Your task to perform on an android device: turn off priority inbox in the gmail app Image 0: 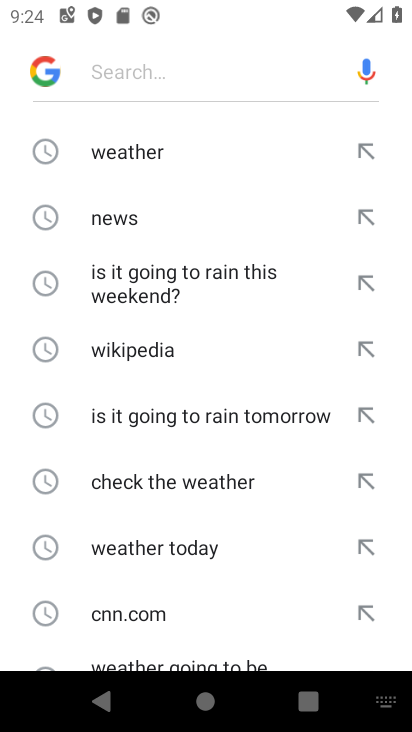
Step 0: press home button
Your task to perform on an android device: turn off priority inbox in the gmail app Image 1: 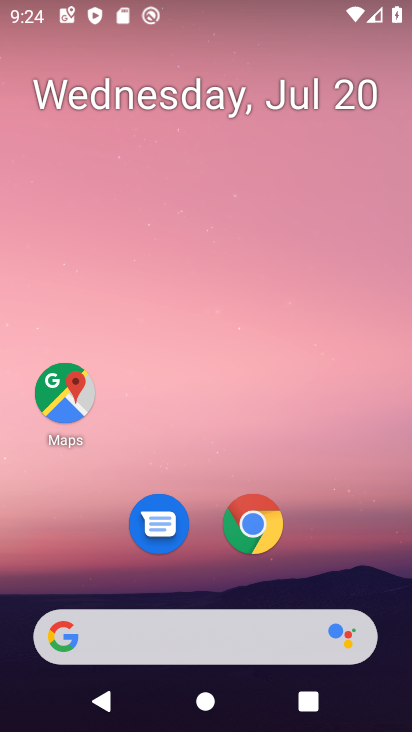
Step 1: drag from (194, 619) to (321, 89)
Your task to perform on an android device: turn off priority inbox in the gmail app Image 2: 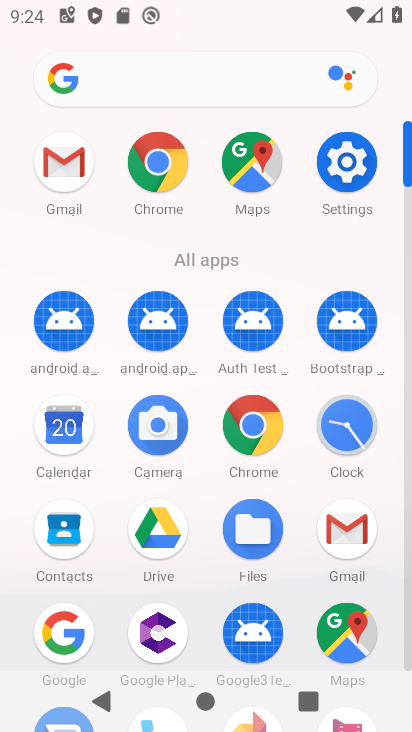
Step 2: click (347, 534)
Your task to perform on an android device: turn off priority inbox in the gmail app Image 3: 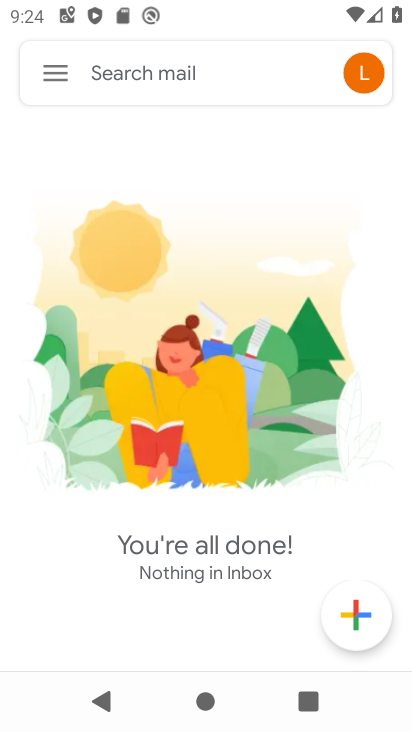
Step 3: click (55, 74)
Your task to perform on an android device: turn off priority inbox in the gmail app Image 4: 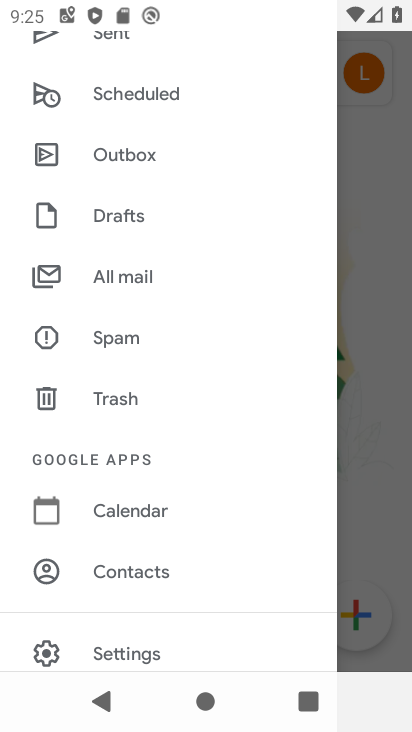
Step 4: click (118, 648)
Your task to perform on an android device: turn off priority inbox in the gmail app Image 5: 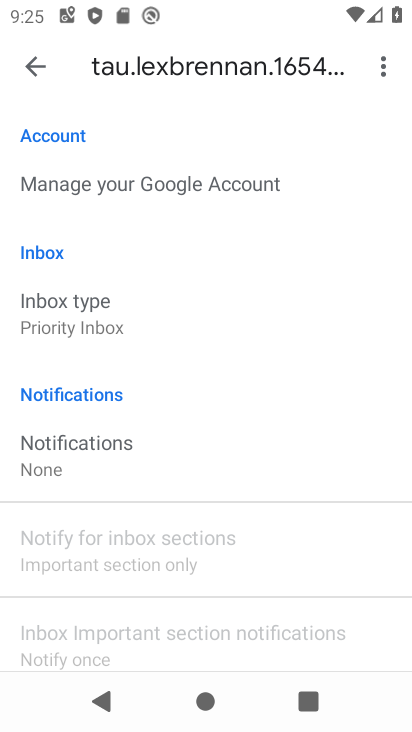
Step 5: click (117, 320)
Your task to perform on an android device: turn off priority inbox in the gmail app Image 6: 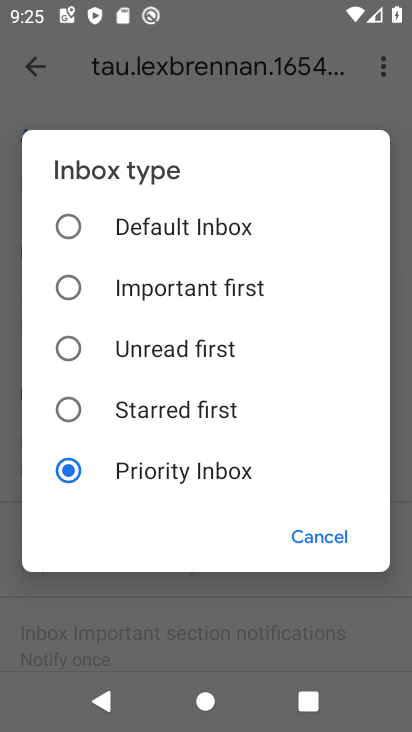
Step 6: click (74, 227)
Your task to perform on an android device: turn off priority inbox in the gmail app Image 7: 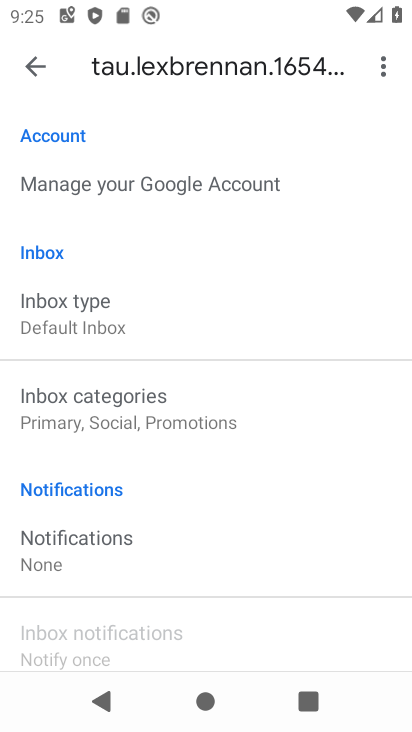
Step 7: task complete